Your task to perform on an android device: Is it going to rain this weekend? Image 0: 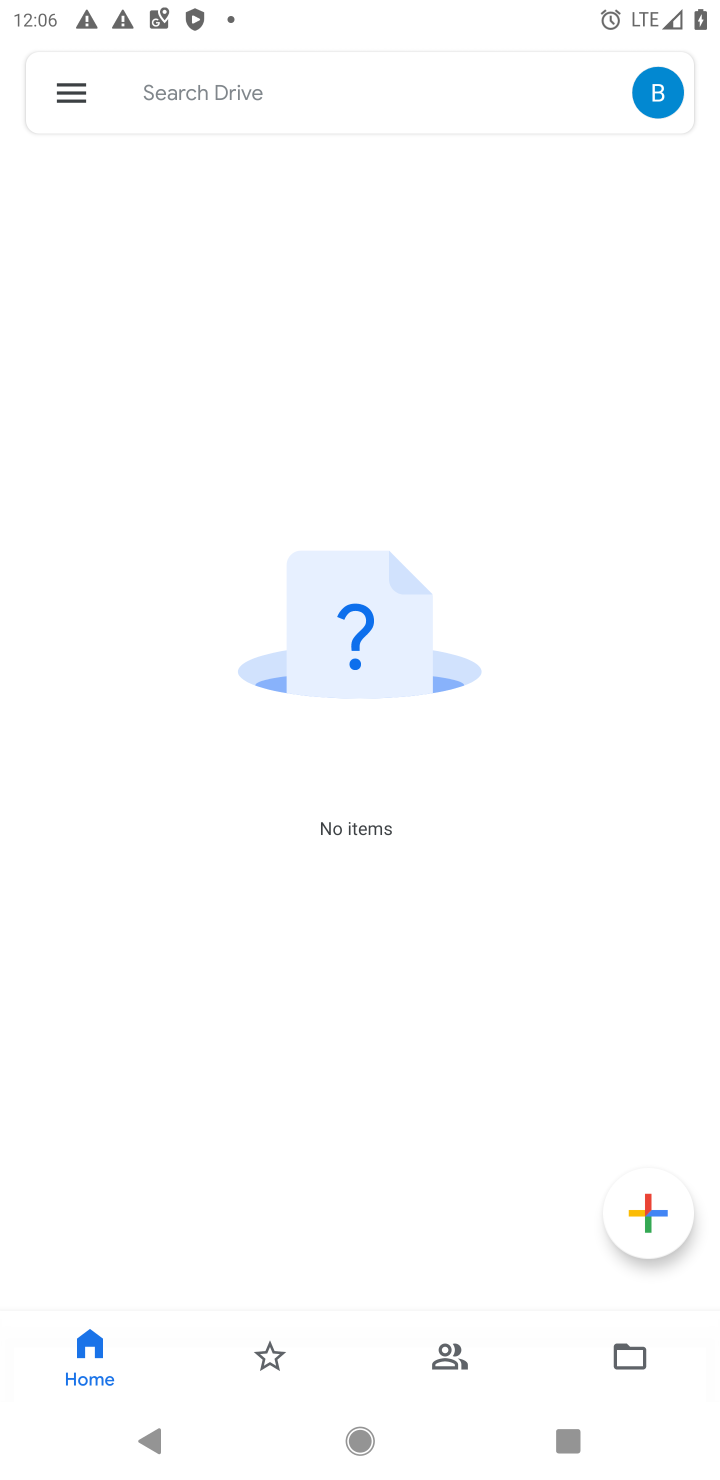
Step 0: press home button
Your task to perform on an android device: Is it going to rain this weekend? Image 1: 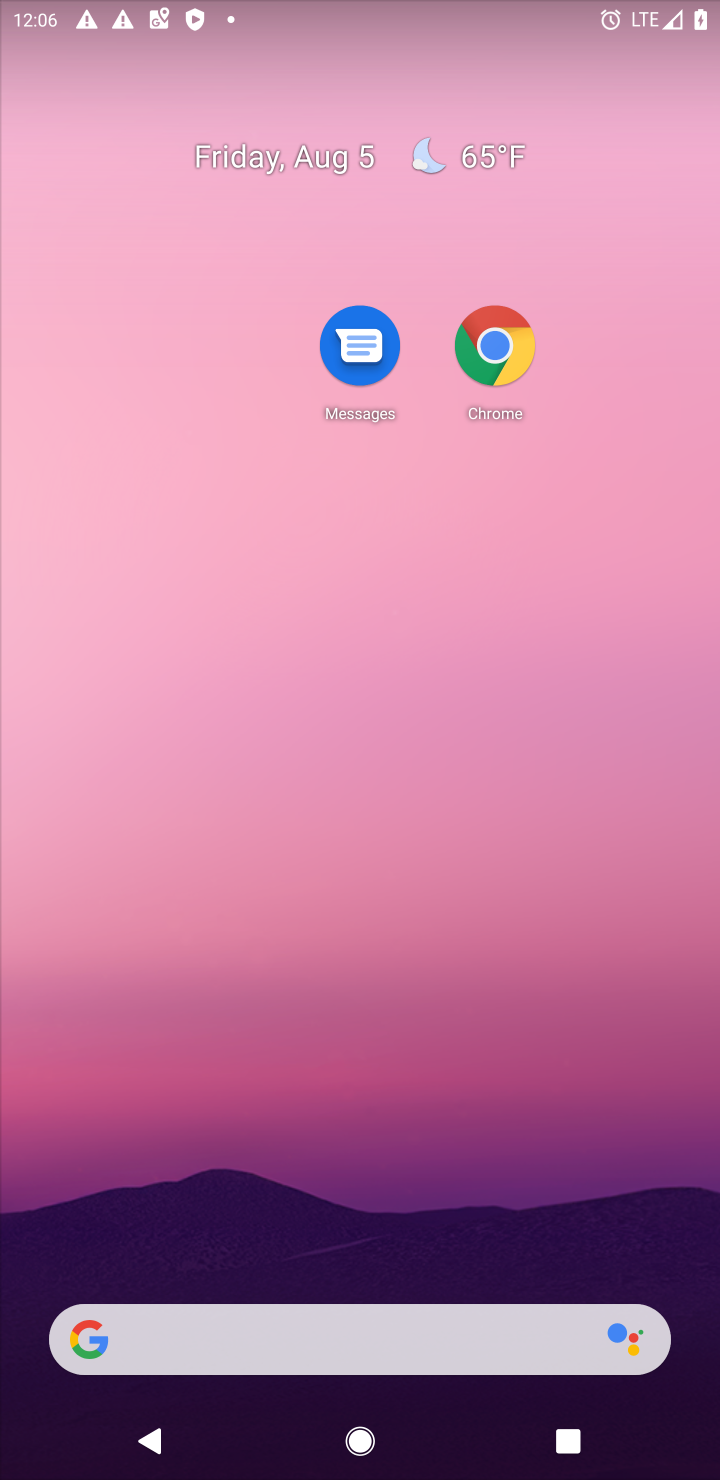
Step 1: drag from (164, 927) to (265, 25)
Your task to perform on an android device: Is it going to rain this weekend? Image 2: 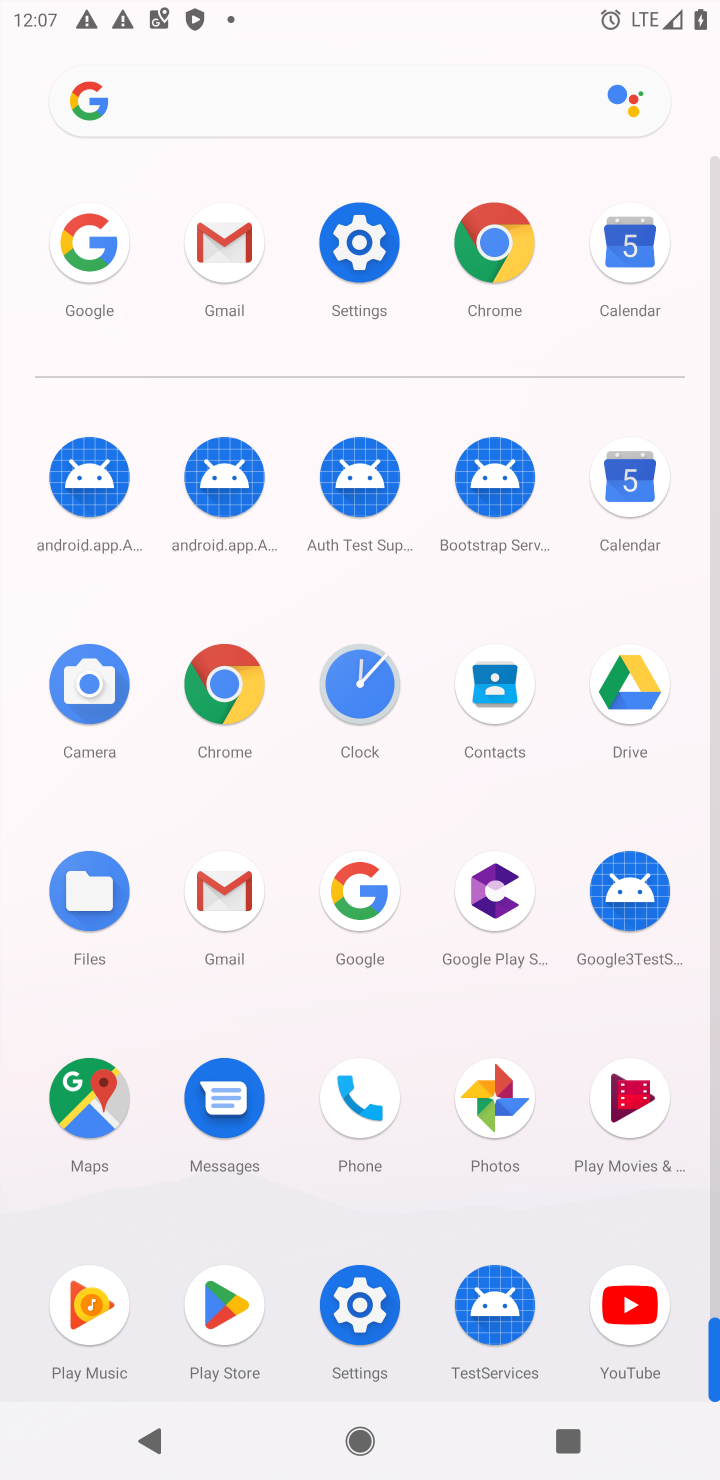
Step 2: click (357, 904)
Your task to perform on an android device: Is it going to rain this weekend? Image 3: 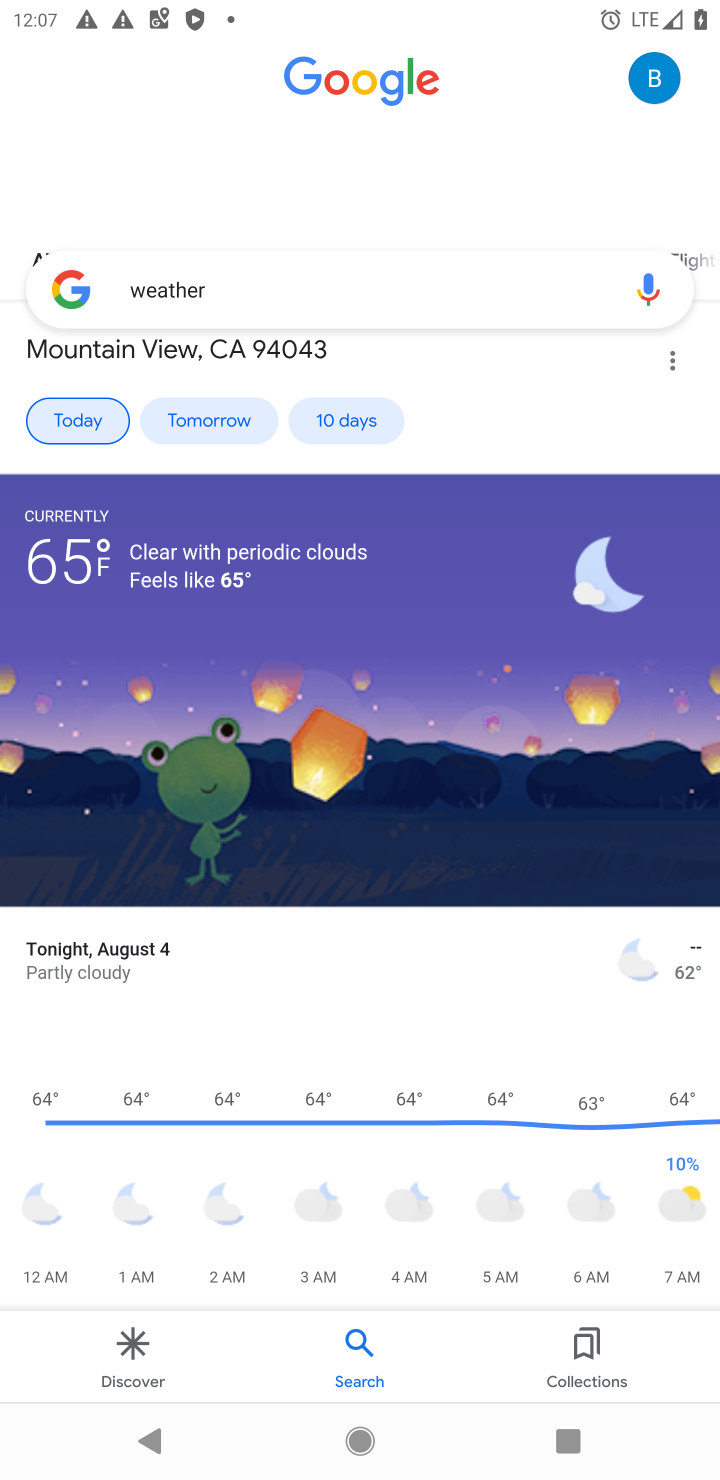
Step 3: click (339, 430)
Your task to perform on an android device: Is it going to rain this weekend? Image 4: 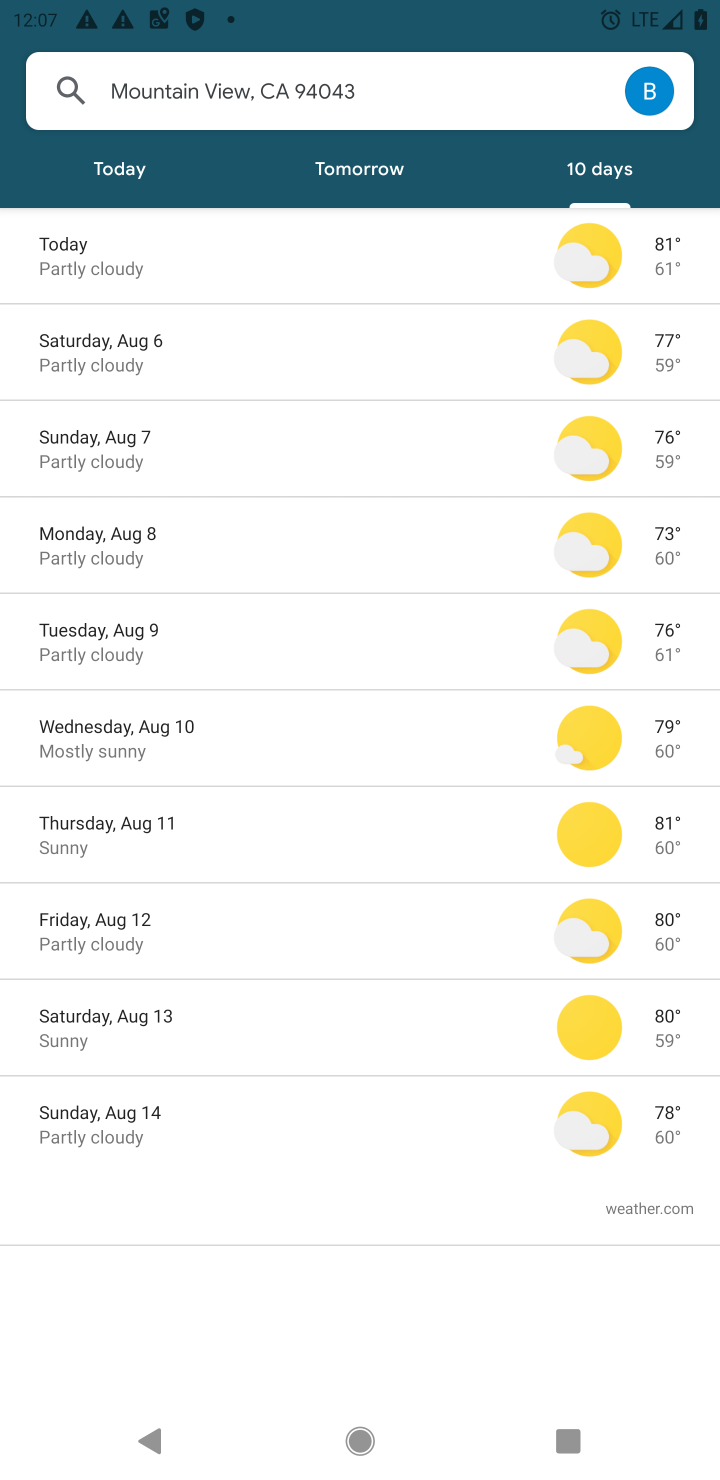
Step 4: task complete